Your task to perform on an android device: Go to ESPN.com Image 0: 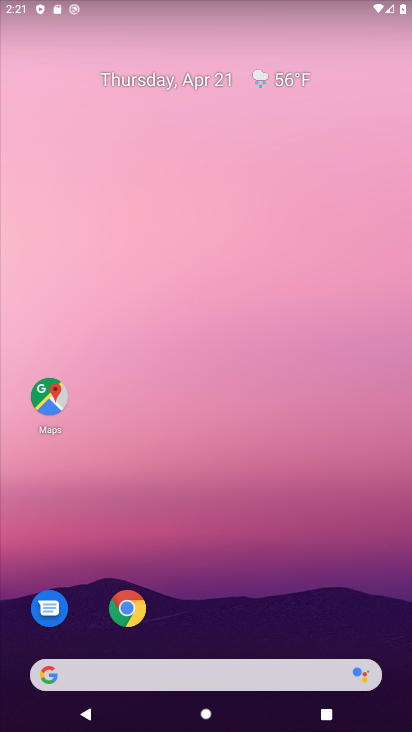
Step 0: drag from (209, 630) to (205, 142)
Your task to perform on an android device: Go to ESPN.com Image 1: 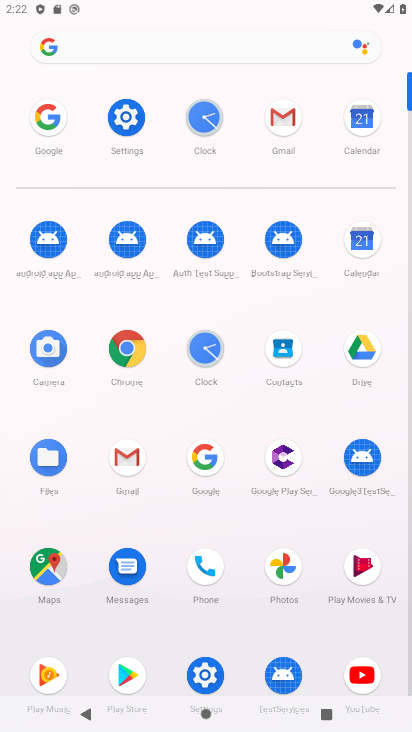
Step 1: click (129, 348)
Your task to perform on an android device: Go to ESPN.com Image 2: 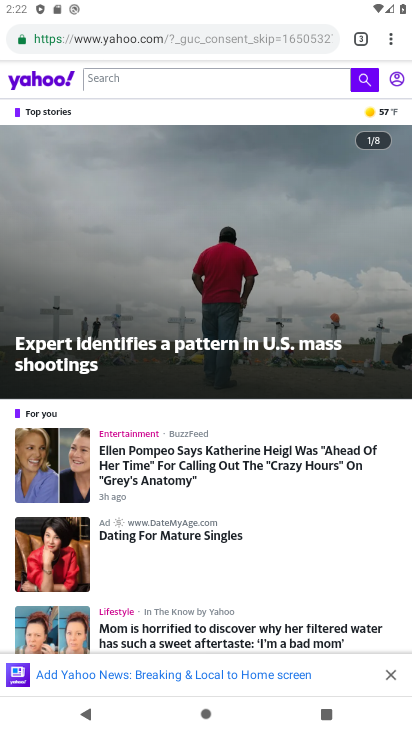
Step 2: click (363, 39)
Your task to perform on an android device: Go to ESPN.com Image 3: 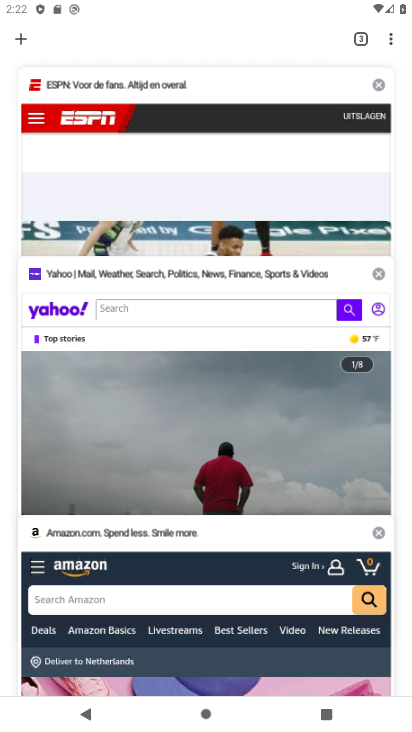
Step 3: click (122, 136)
Your task to perform on an android device: Go to ESPN.com Image 4: 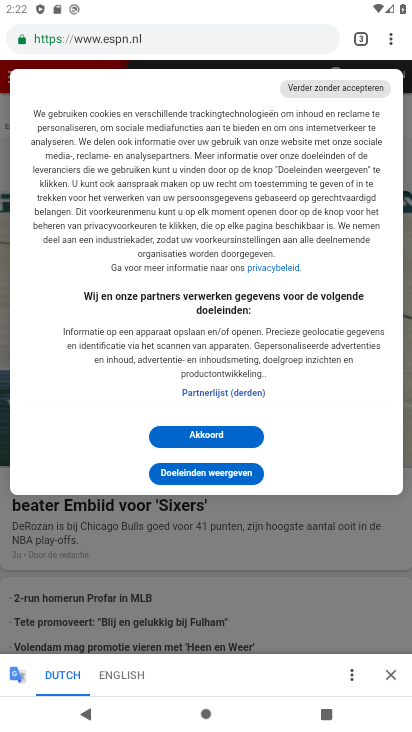
Step 4: task complete